Your task to perform on an android device: Go to eBay Image 0: 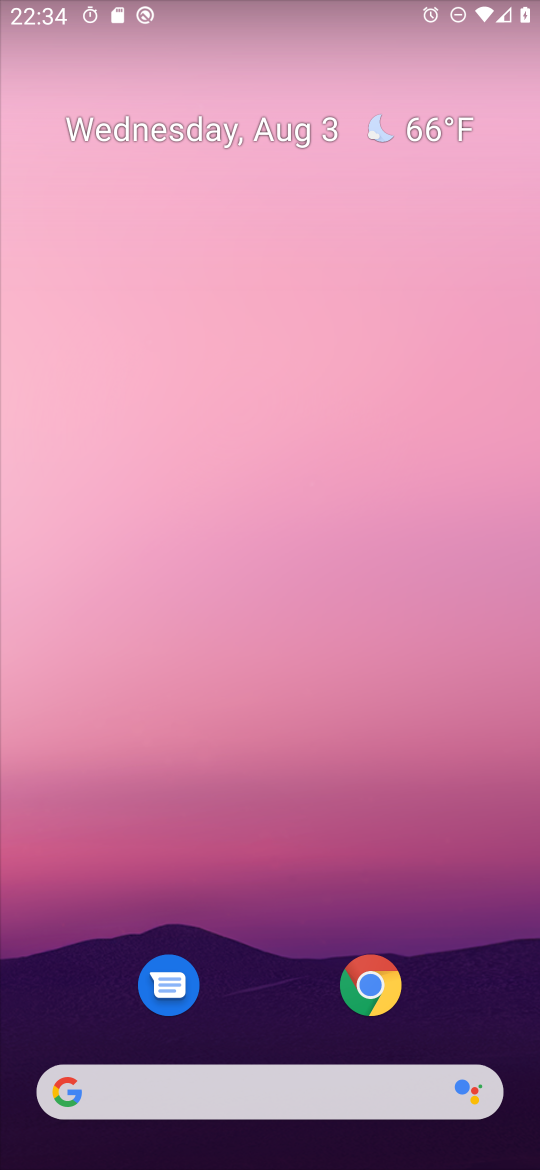
Step 0: click (364, 987)
Your task to perform on an android device: Go to eBay Image 1: 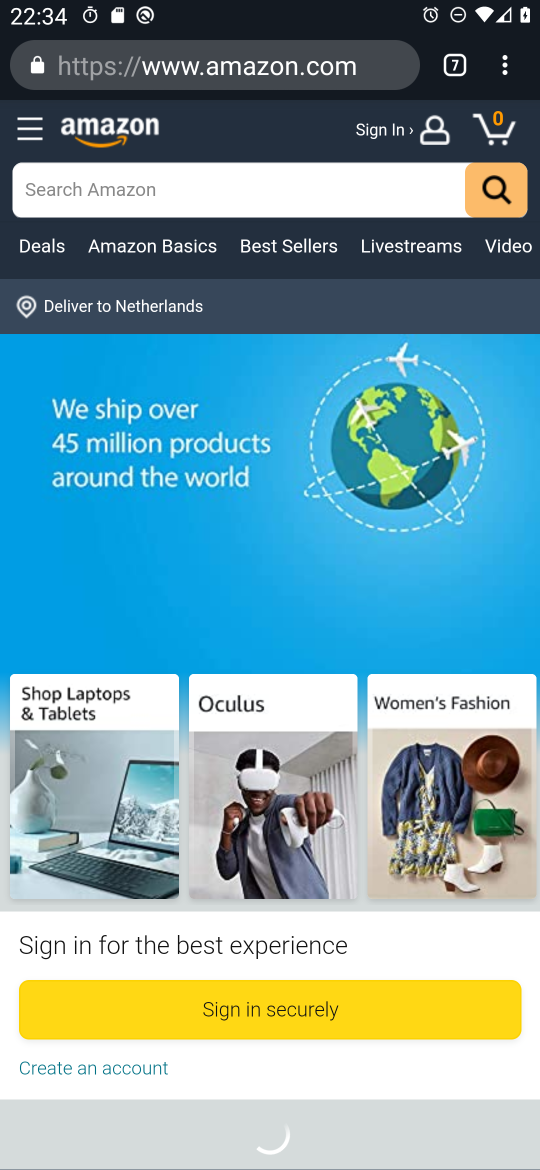
Step 1: click (452, 69)
Your task to perform on an android device: Go to eBay Image 2: 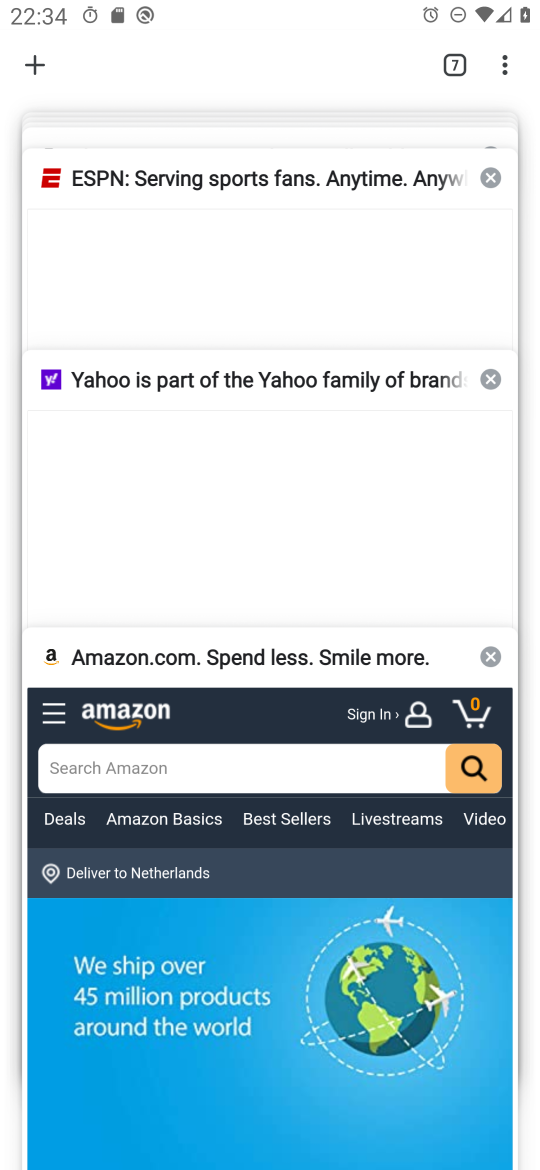
Step 2: click (39, 55)
Your task to perform on an android device: Go to eBay Image 3: 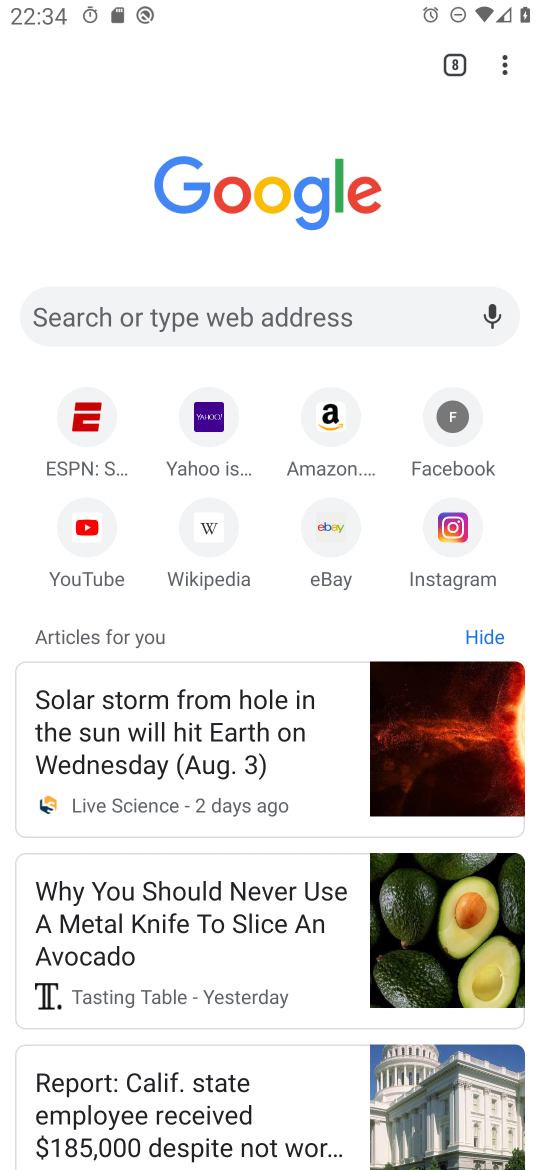
Step 3: type "eBay"
Your task to perform on an android device: Go to eBay Image 4: 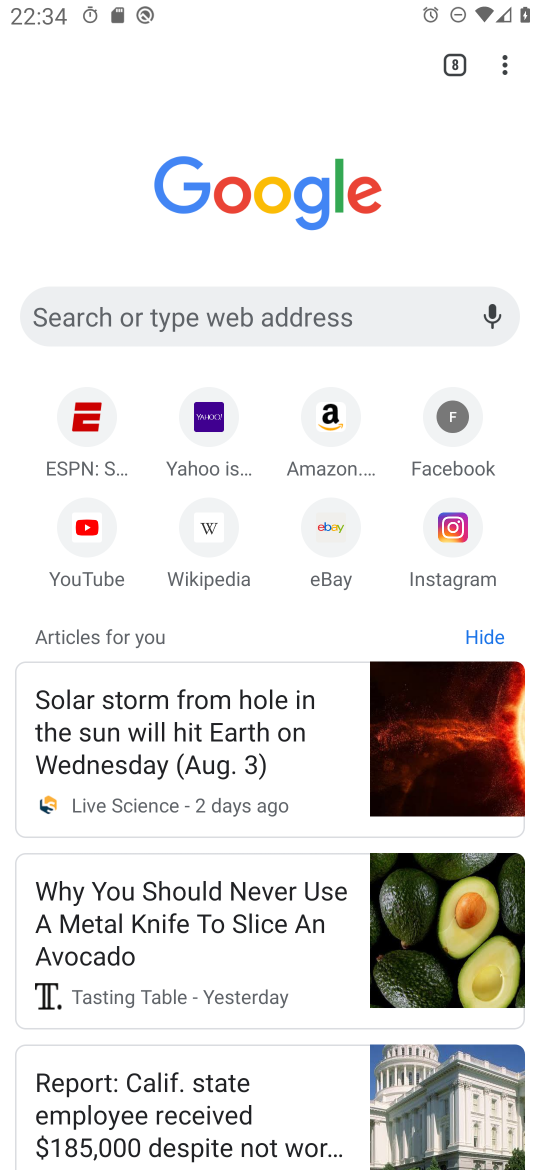
Step 4: type ""
Your task to perform on an android device: Go to eBay Image 5: 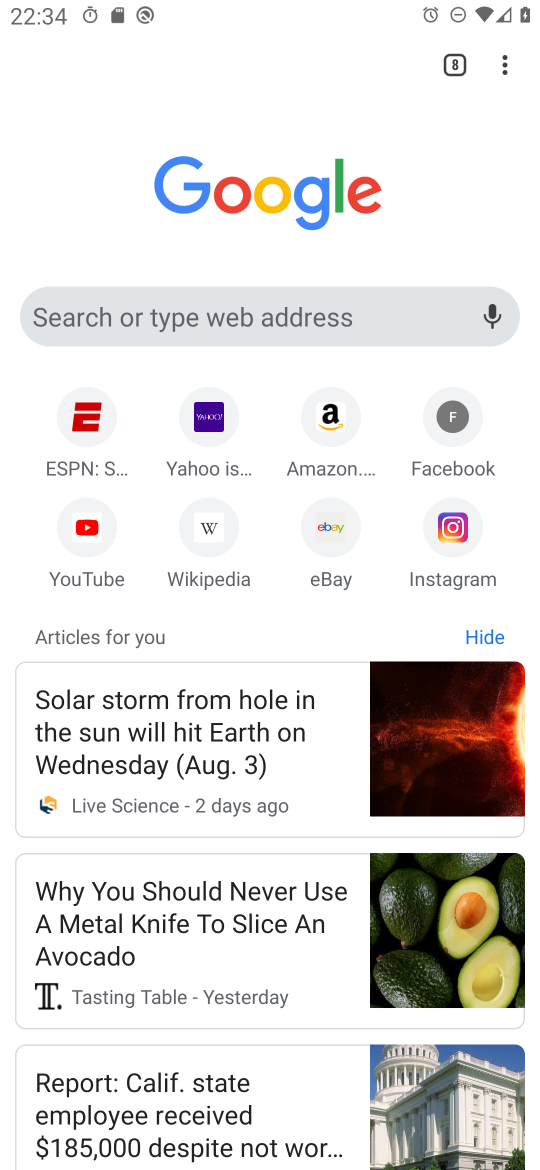
Step 5: click (227, 318)
Your task to perform on an android device: Go to eBay Image 6: 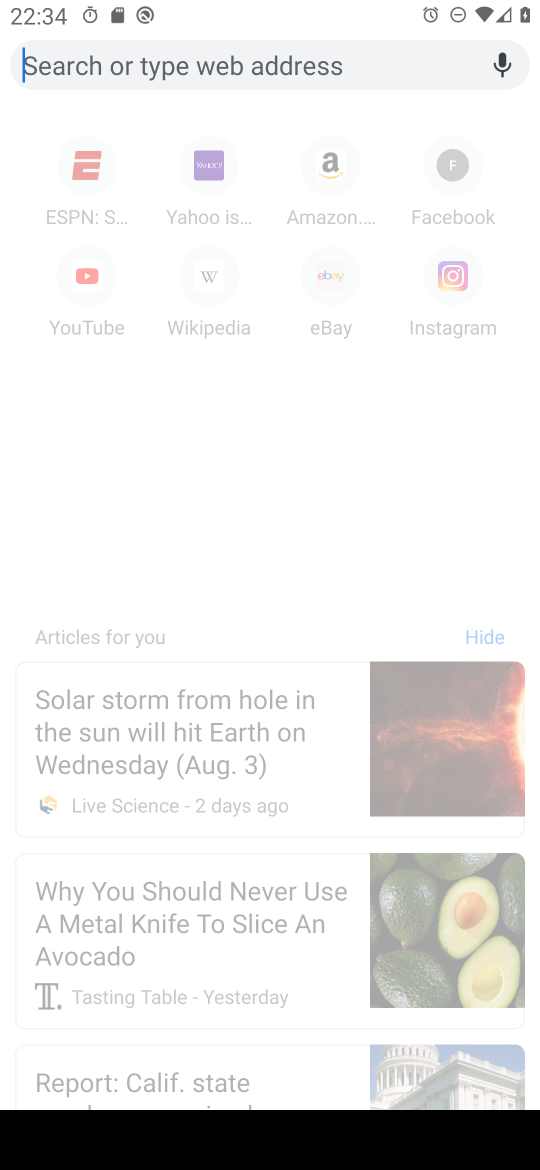
Step 6: type "eBay"
Your task to perform on an android device: Go to eBay Image 7: 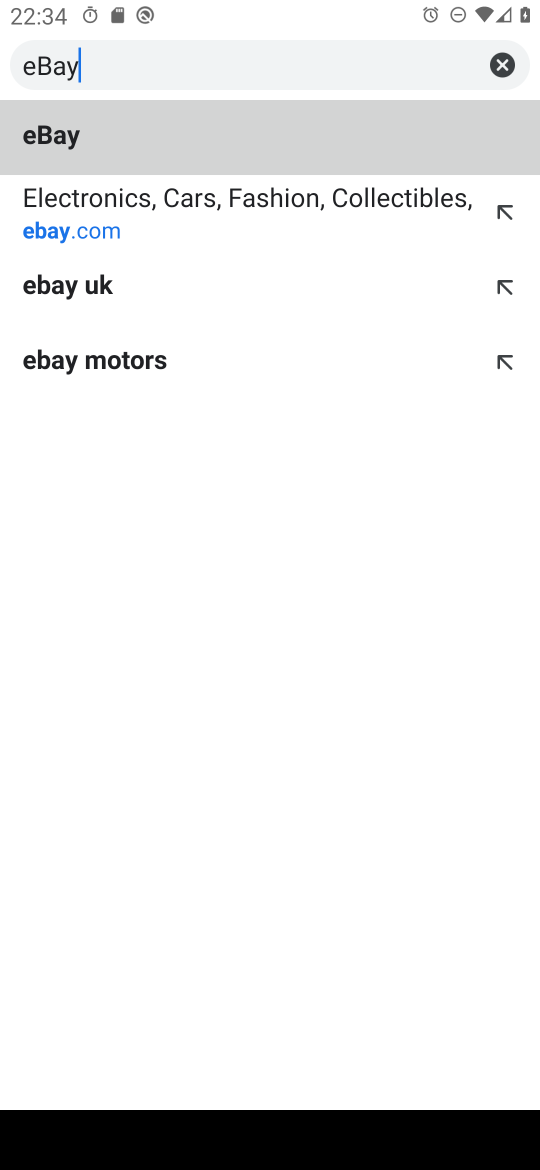
Step 7: click (102, 144)
Your task to perform on an android device: Go to eBay Image 8: 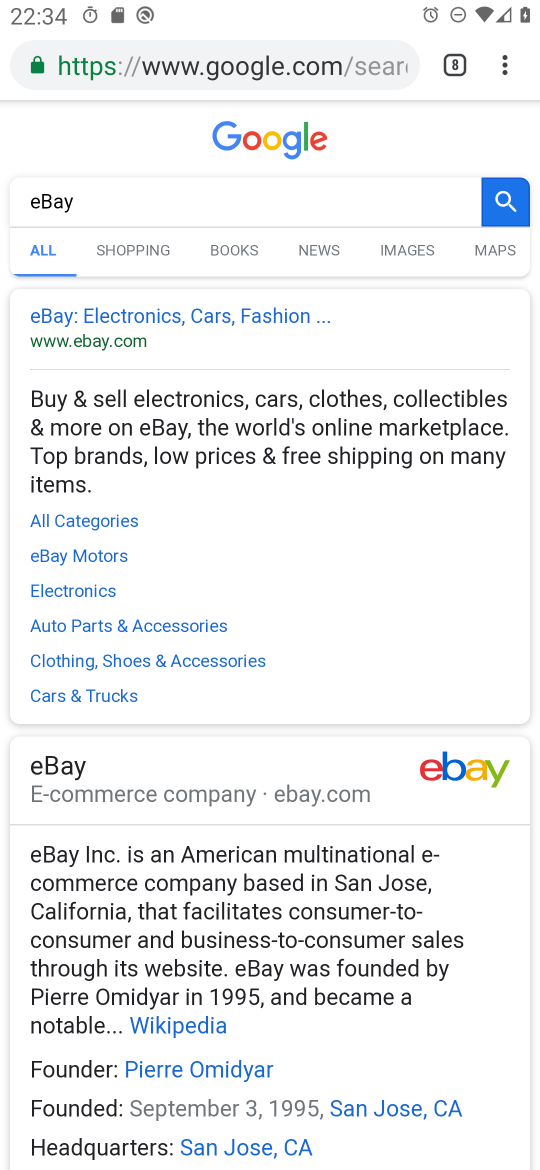
Step 8: click (199, 797)
Your task to perform on an android device: Go to eBay Image 9: 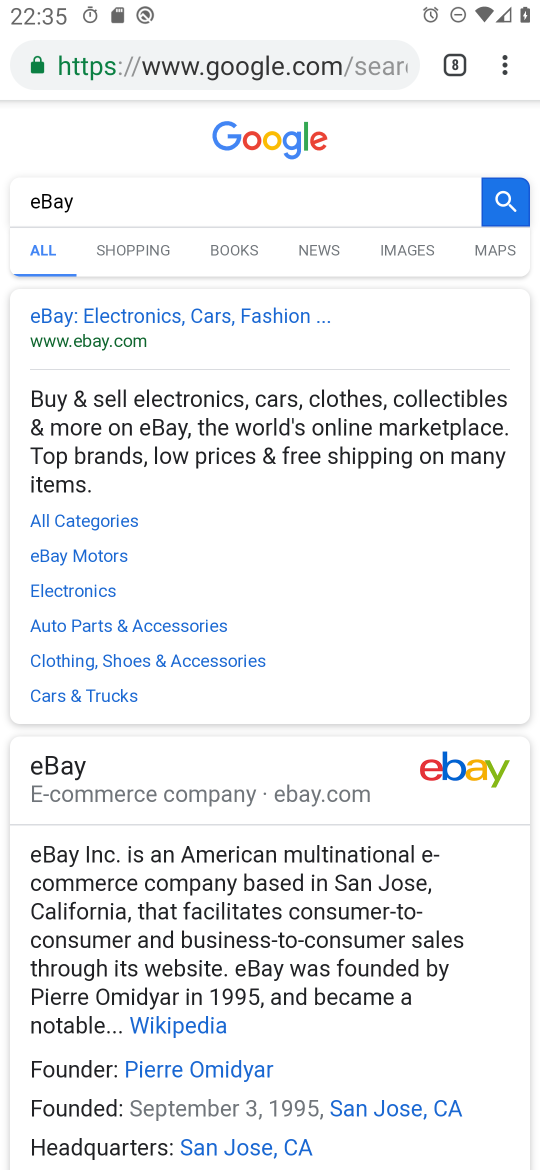
Step 9: click (167, 303)
Your task to perform on an android device: Go to eBay Image 10: 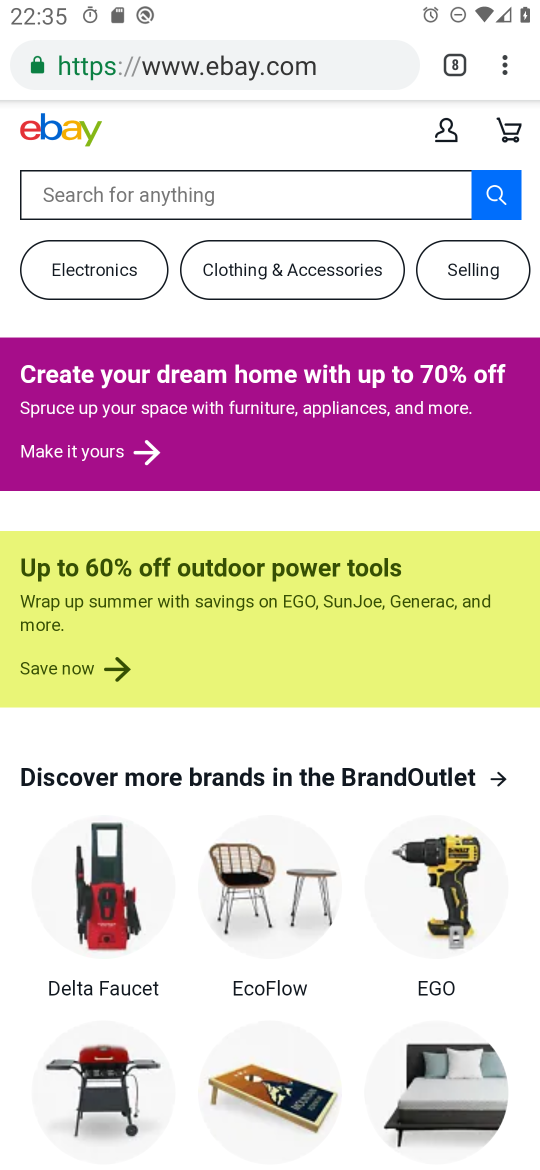
Step 10: task complete